Your task to perform on an android device: turn on sleep mode Image 0: 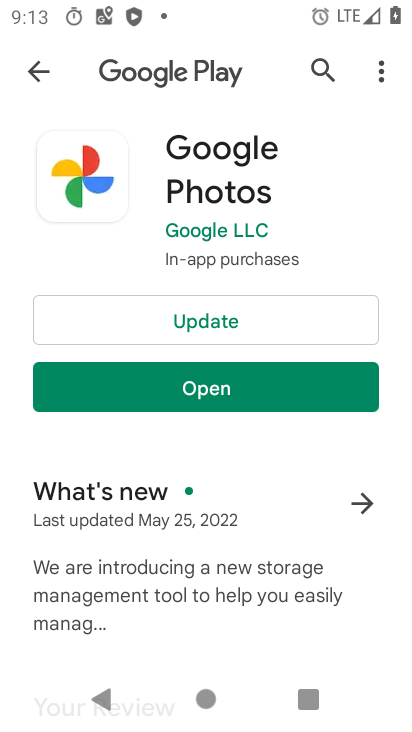
Step 0: press home button
Your task to perform on an android device: turn on sleep mode Image 1: 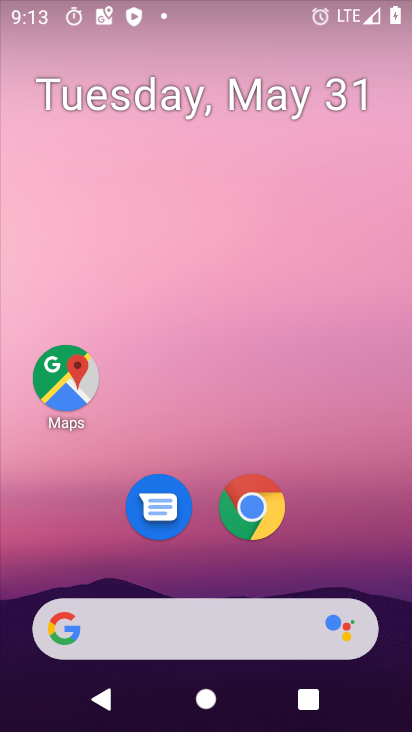
Step 1: drag from (21, 541) to (190, 147)
Your task to perform on an android device: turn on sleep mode Image 2: 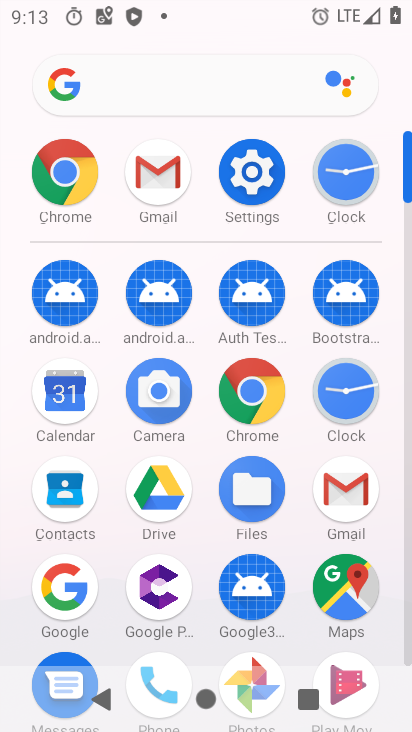
Step 2: click (234, 190)
Your task to perform on an android device: turn on sleep mode Image 3: 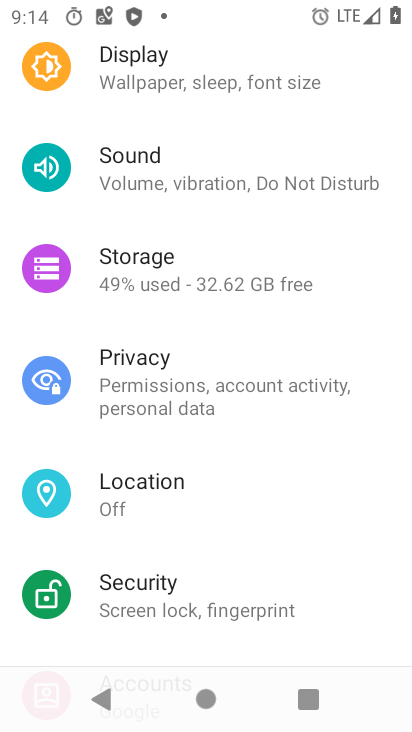
Step 3: task complete